Your task to perform on an android device: turn on location history Image 0: 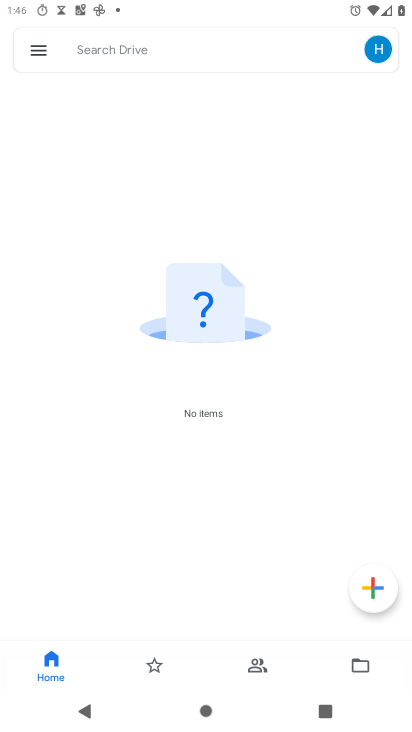
Step 0: press home button
Your task to perform on an android device: turn on location history Image 1: 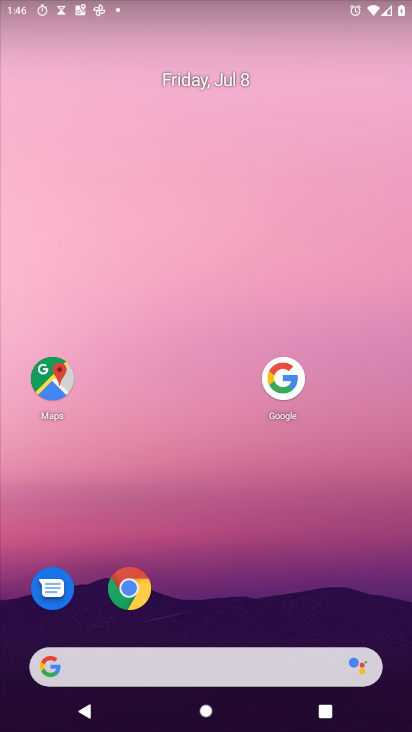
Step 1: drag from (178, 663) to (253, 23)
Your task to perform on an android device: turn on location history Image 2: 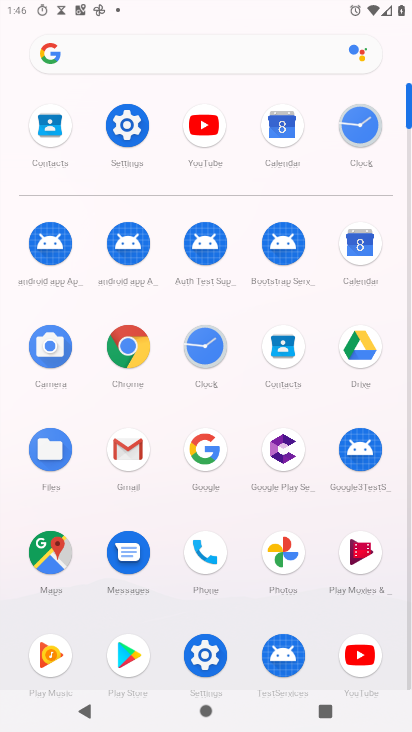
Step 2: click (118, 130)
Your task to perform on an android device: turn on location history Image 3: 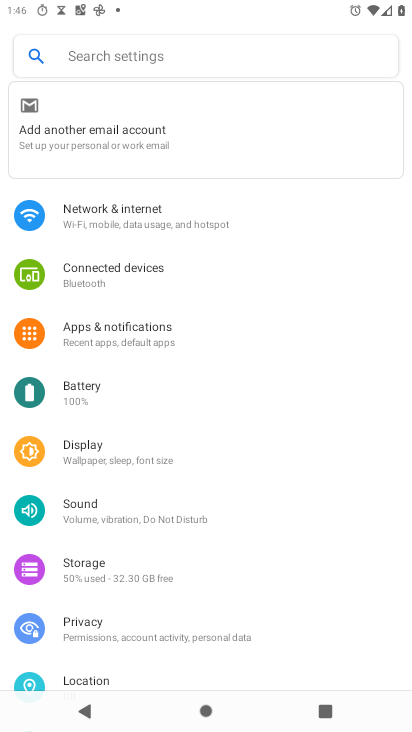
Step 3: drag from (103, 656) to (241, 104)
Your task to perform on an android device: turn on location history Image 4: 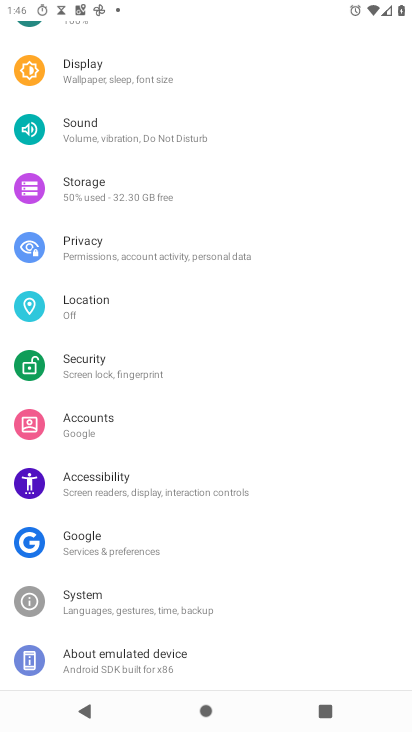
Step 4: click (80, 309)
Your task to perform on an android device: turn on location history Image 5: 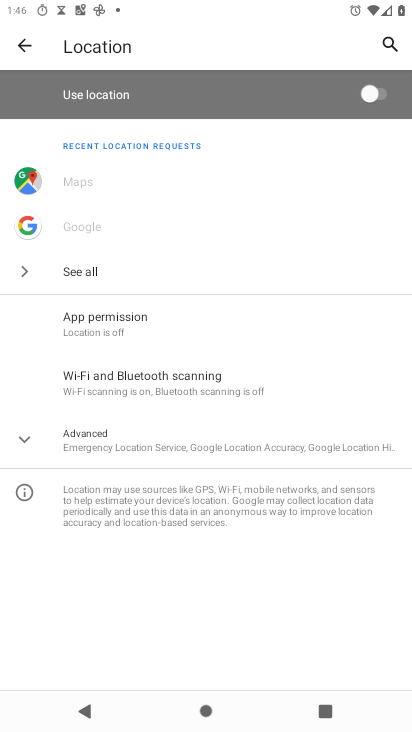
Step 5: click (151, 444)
Your task to perform on an android device: turn on location history Image 6: 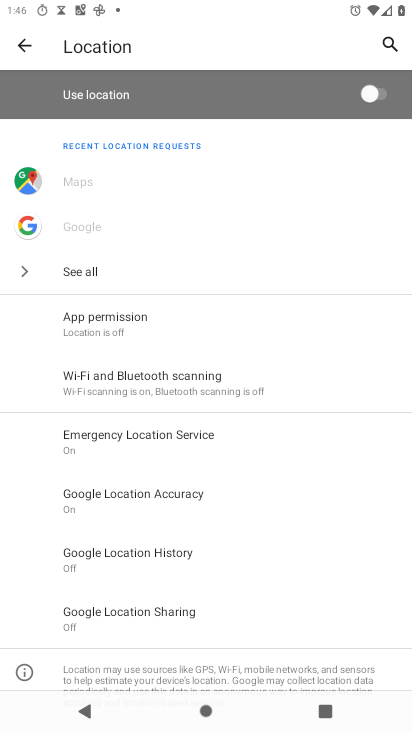
Step 6: click (160, 554)
Your task to perform on an android device: turn on location history Image 7: 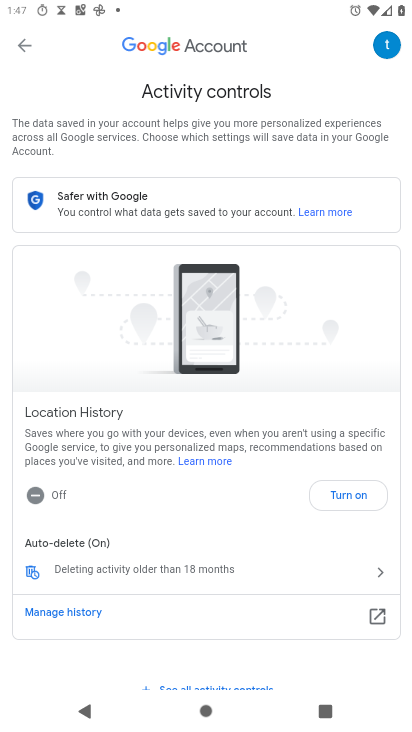
Step 7: click (351, 496)
Your task to perform on an android device: turn on location history Image 8: 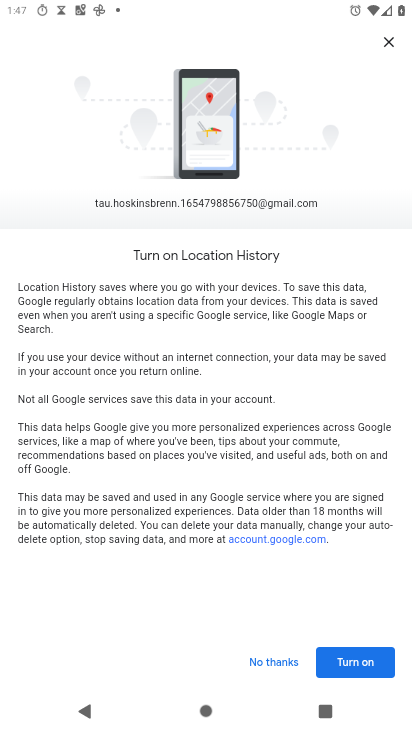
Step 8: click (370, 658)
Your task to perform on an android device: turn on location history Image 9: 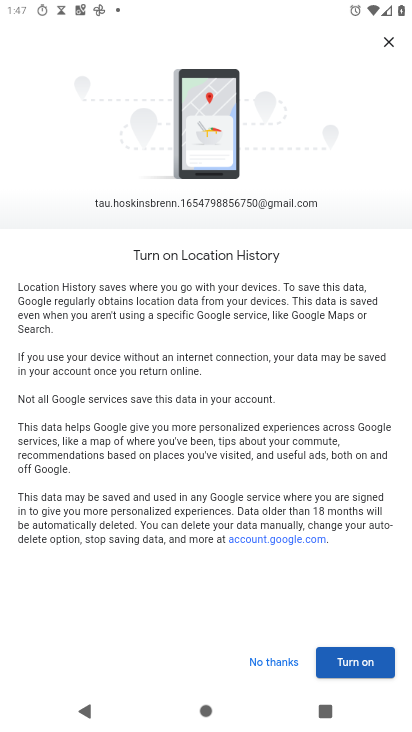
Step 9: click (356, 667)
Your task to perform on an android device: turn on location history Image 10: 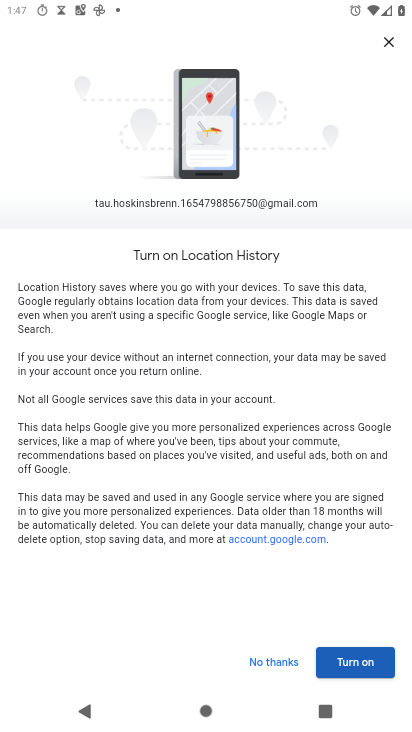
Step 10: click (361, 665)
Your task to perform on an android device: turn on location history Image 11: 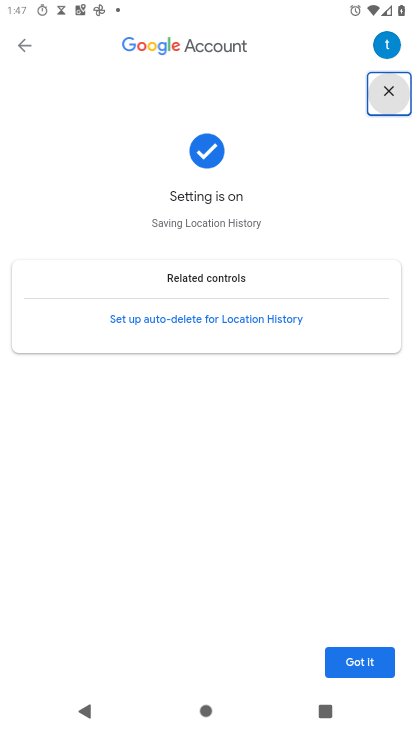
Step 11: click (357, 659)
Your task to perform on an android device: turn on location history Image 12: 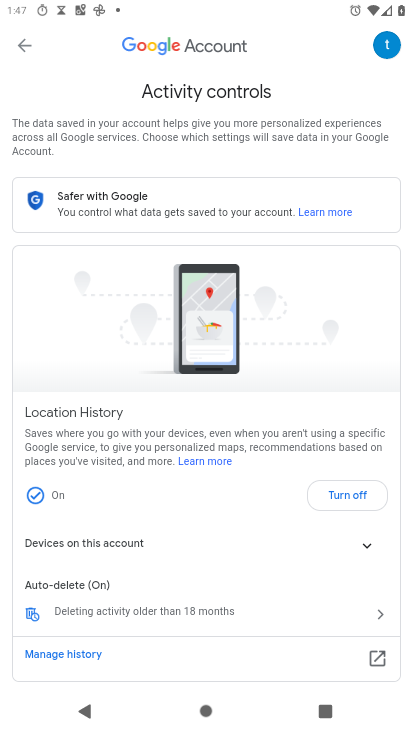
Step 12: task complete